Your task to perform on an android device: clear all cookies in the chrome app Image 0: 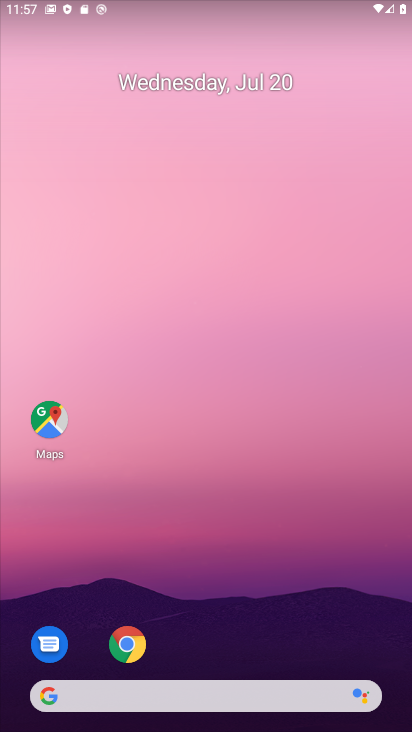
Step 0: drag from (198, 665) to (130, 44)
Your task to perform on an android device: clear all cookies in the chrome app Image 1: 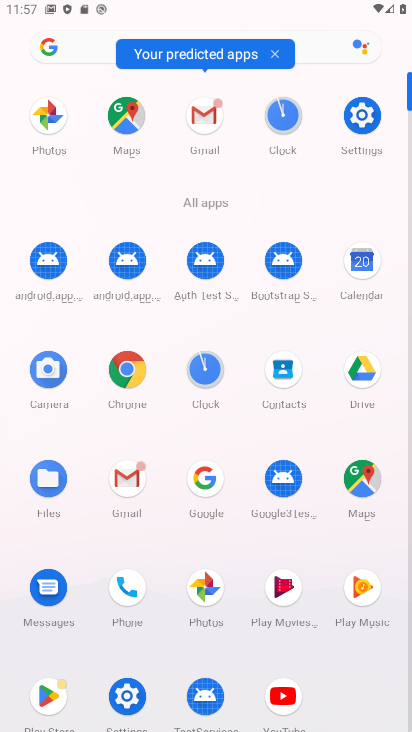
Step 1: click (129, 374)
Your task to perform on an android device: clear all cookies in the chrome app Image 2: 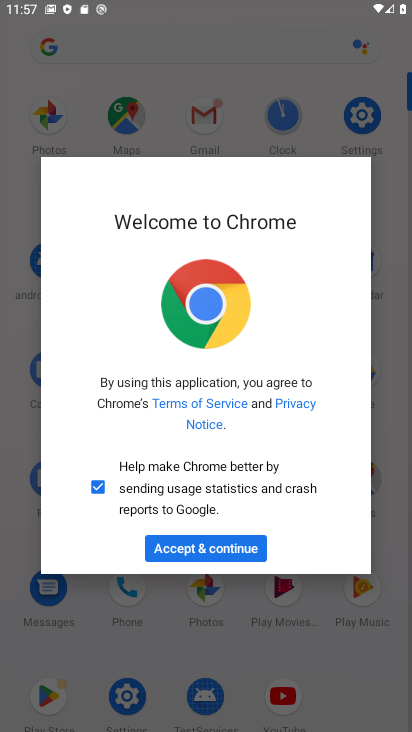
Step 2: click (191, 546)
Your task to perform on an android device: clear all cookies in the chrome app Image 3: 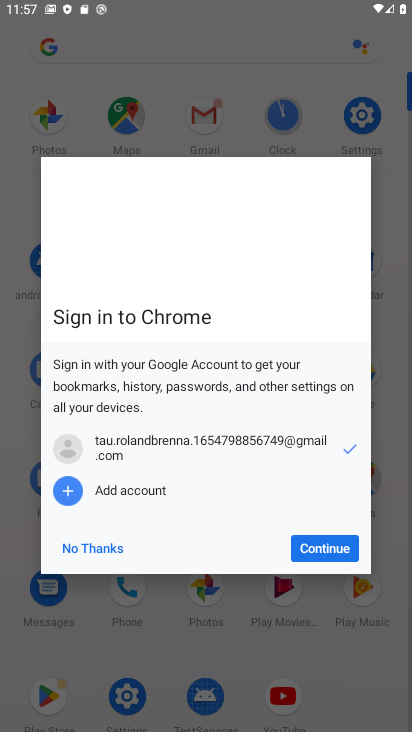
Step 3: click (310, 547)
Your task to perform on an android device: clear all cookies in the chrome app Image 4: 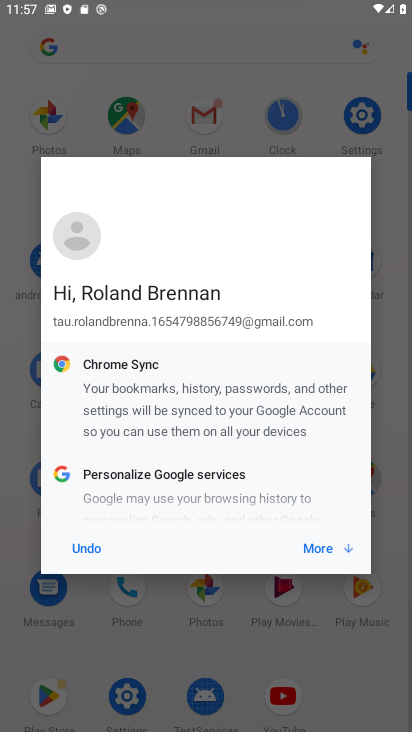
Step 4: click (310, 547)
Your task to perform on an android device: clear all cookies in the chrome app Image 5: 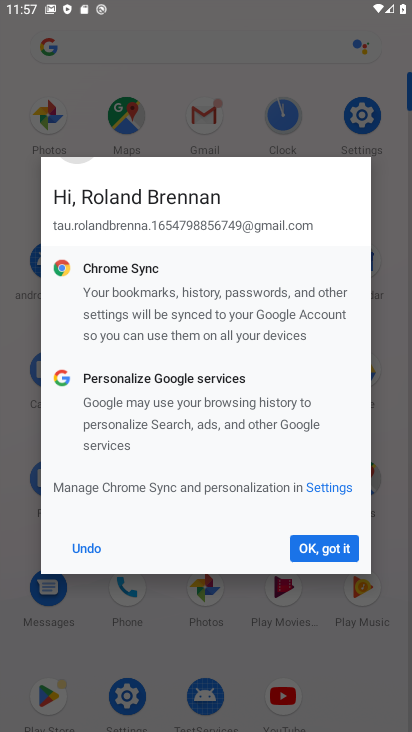
Step 5: click (310, 547)
Your task to perform on an android device: clear all cookies in the chrome app Image 6: 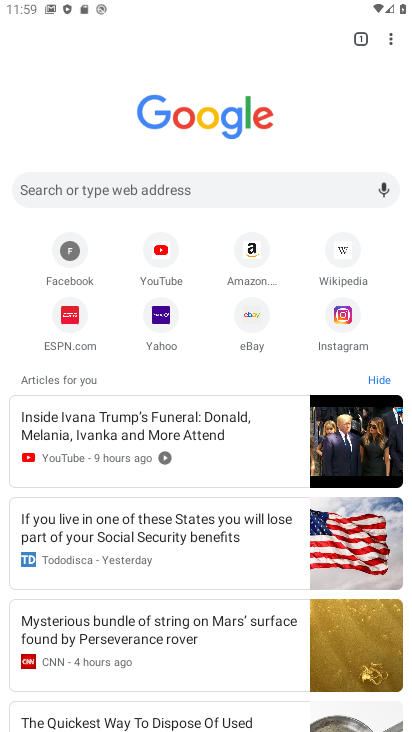
Step 6: click (390, 44)
Your task to perform on an android device: clear all cookies in the chrome app Image 7: 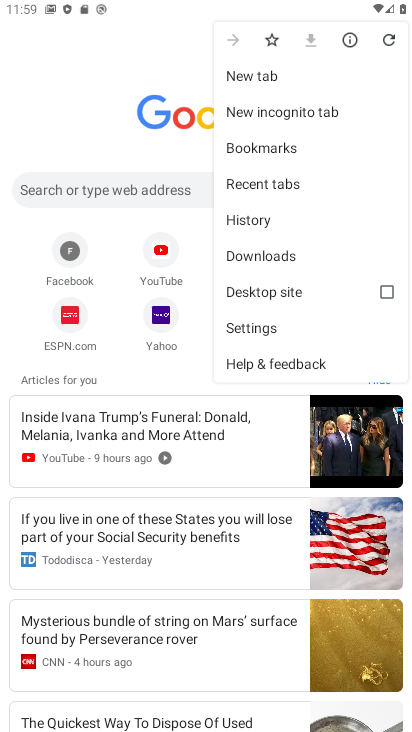
Step 7: click (240, 217)
Your task to perform on an android device: clear all cookies in the chrome app Image 8: 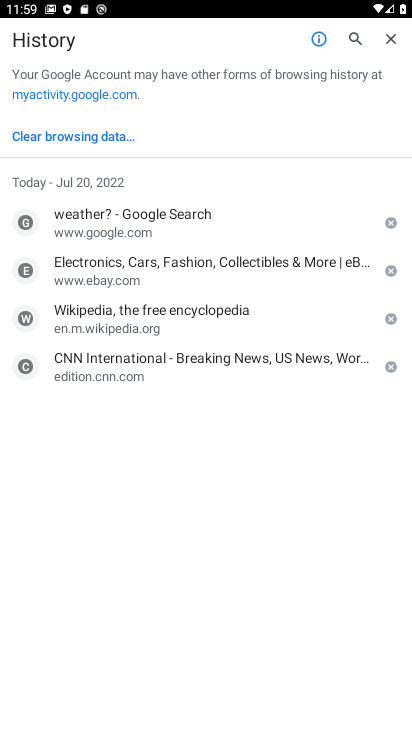
Step 8: click (50, 134)
Your task to perform on an android device: clear all cookies in the chrome app Image 9: 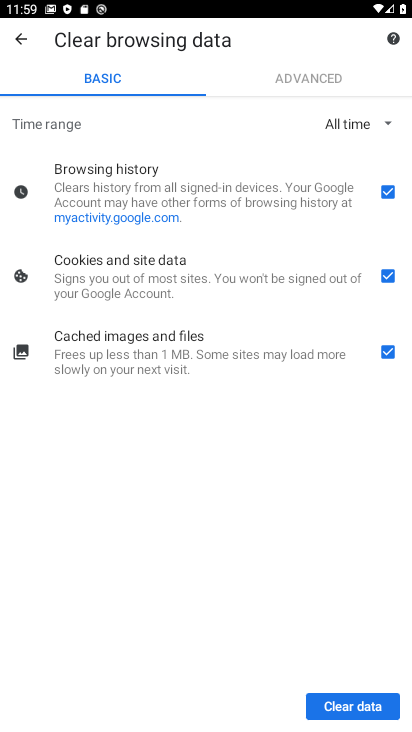
Step 9: click (326, 693)
Your task to perform on an android device: clear all cookies in the chrome app Image 10: 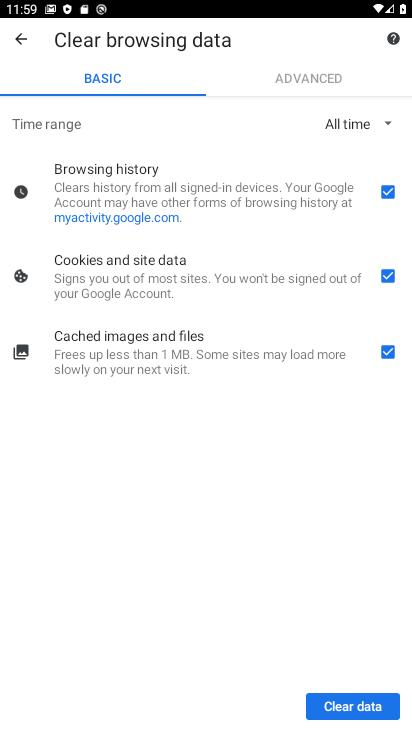
Step 10: click (324, 709)
Your task to perform on an android device: clear all cookies in the chrome app Image 11: 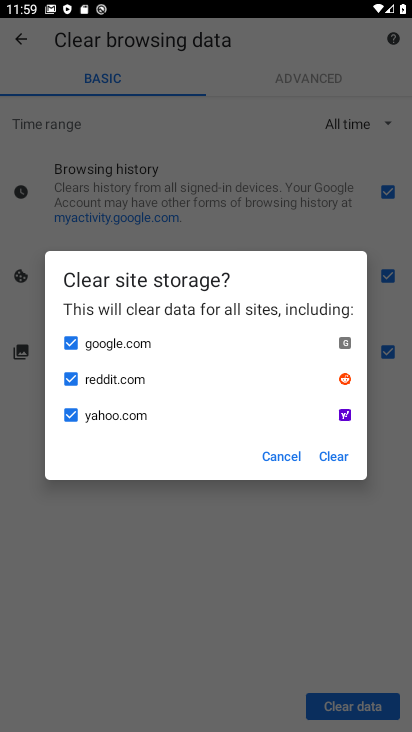
Step 11: click (318, 463)
Your task to perform on an android device: clear all cookies in the chrome app Image 12: 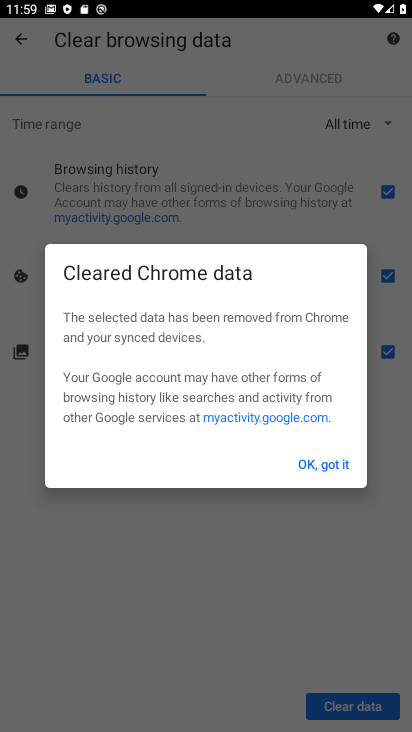
Step 12: click (318, 463)
Your task to perform on an android device: clear all cookies in the chrome app Image 13: 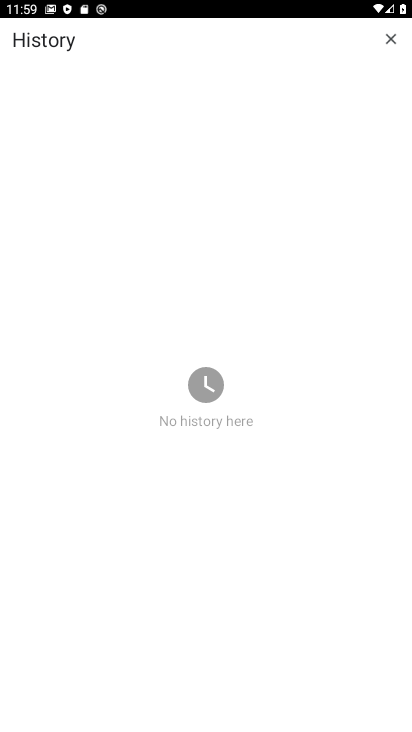
Step 13: task complete